Your task to perform on an android device: Open display settings Image 0: 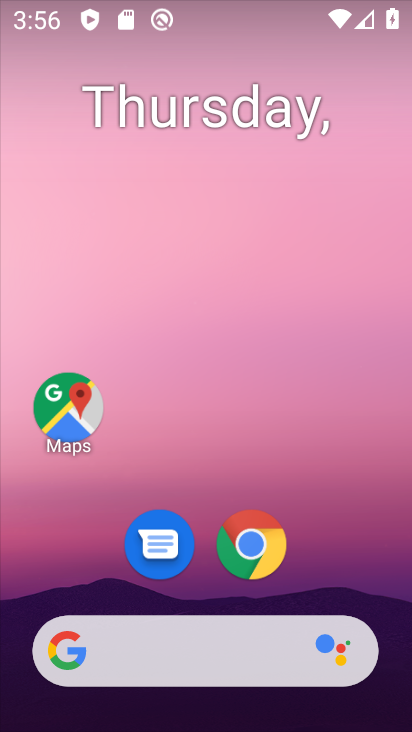
Step 0: drag from (302, 548) to (293, 270)
Your task to perform on an android device: Open display settings Image 1: 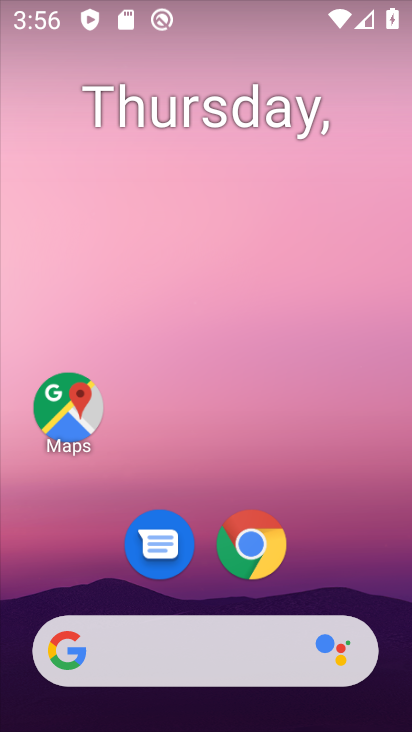
Step 1: drag from (298, 291) to (278, 154)
Your task to perform on an android device: Open display settings Image 2: 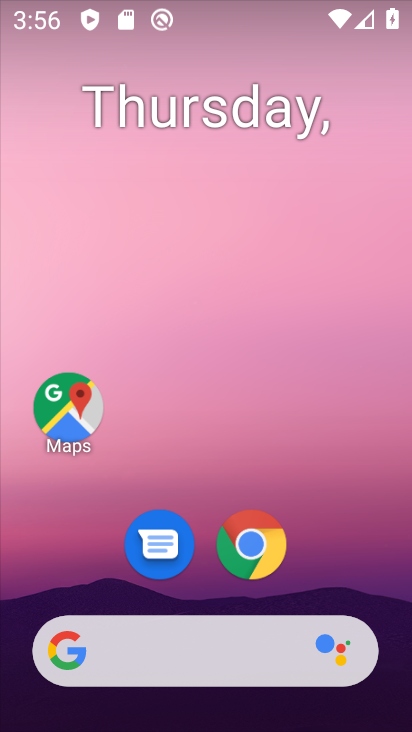
Step 2: drag from (341, 595) to (309, 120)
Your task to perform on an android device: Open display settings Image 3: 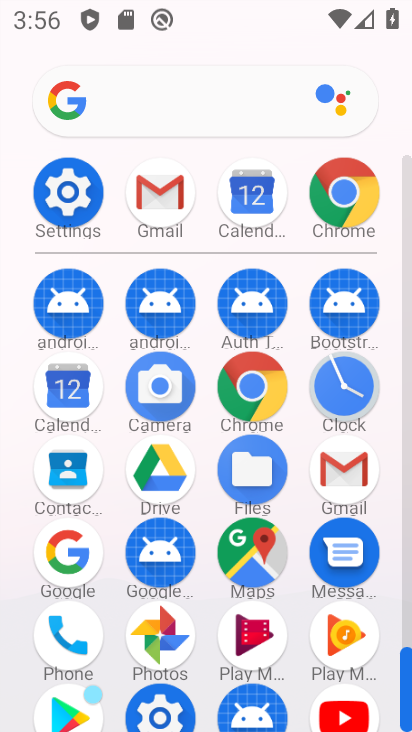
Step 3: click (62, 198)
Your task to perform on an android device: Open display settings Image 4: 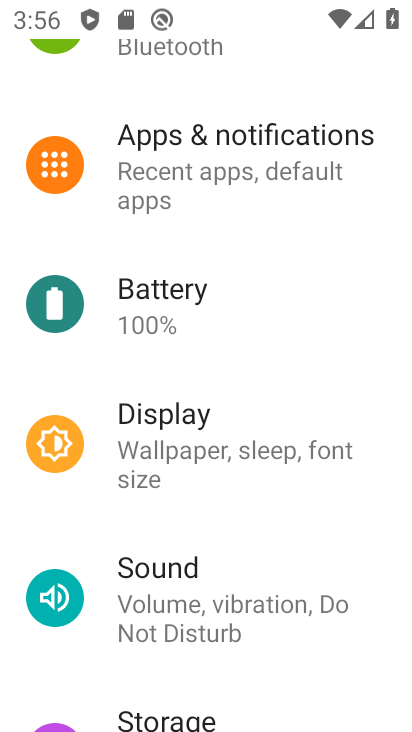
Step 4: click (170, 431)
Your task to perform on an android device: Open display settings Image 5: 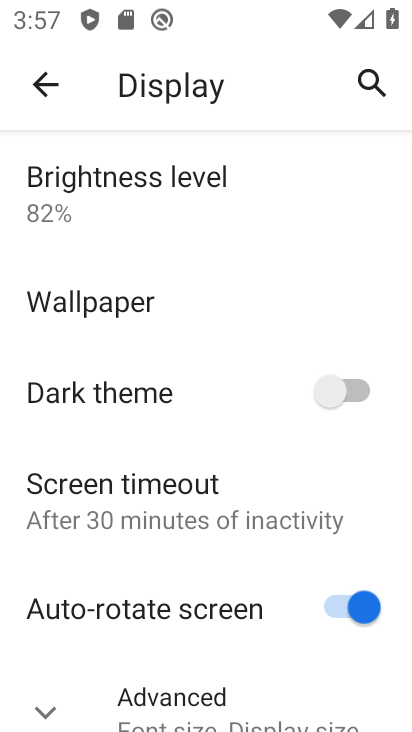
Step 5: task complete